Your task to perform on an android device: What's the weather today? Image 0: 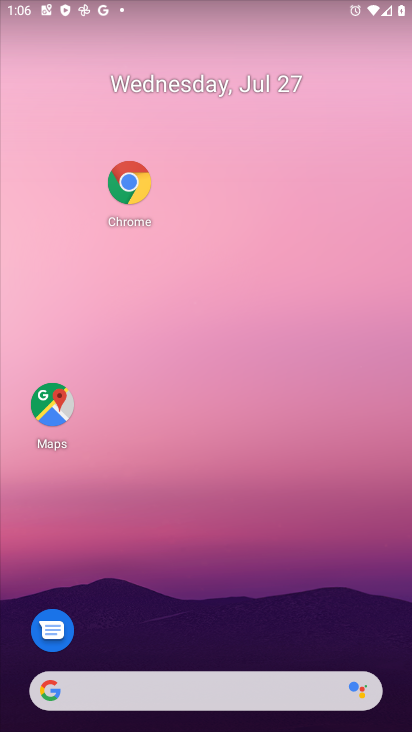
Step 0: click (282, 695)
Your task to perform on an android device: What's the weather today? Image 1: 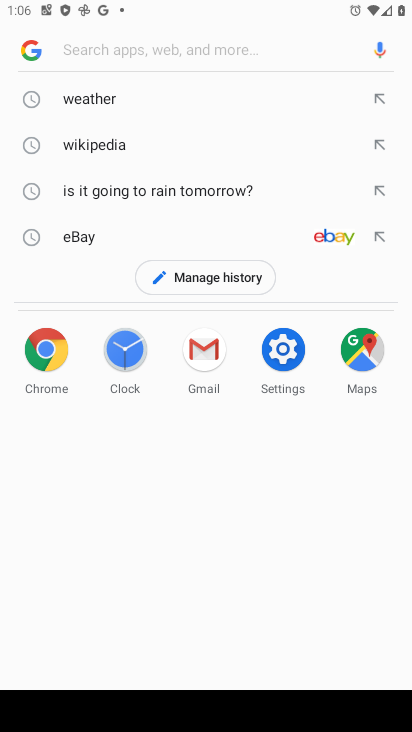
Step 1: type "weather today"
Your task to perform on an android device: What's the weather today? Image 2: 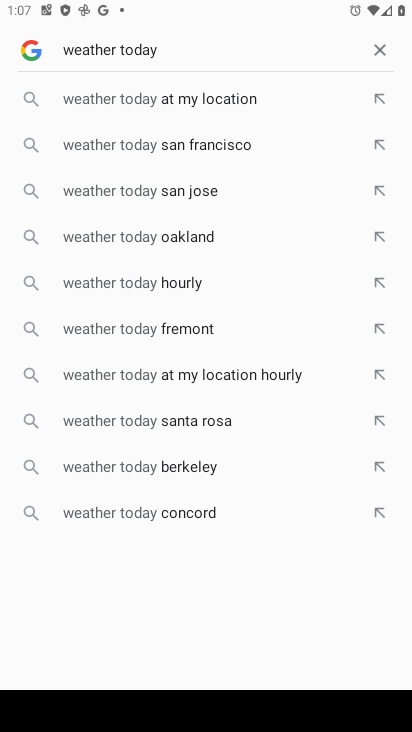
Step 2: press enter
Your task to perform on an android device: What's the weather today? Image 3: 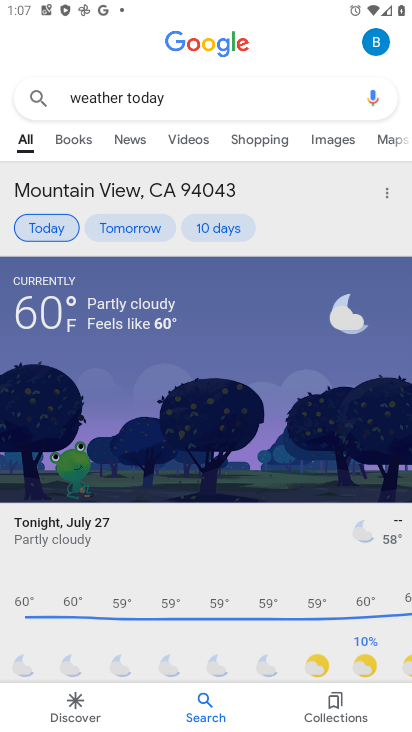
Step 3: task complete